Your task to perform on an android device: Show me productivity apps on the Play Store Image 0: 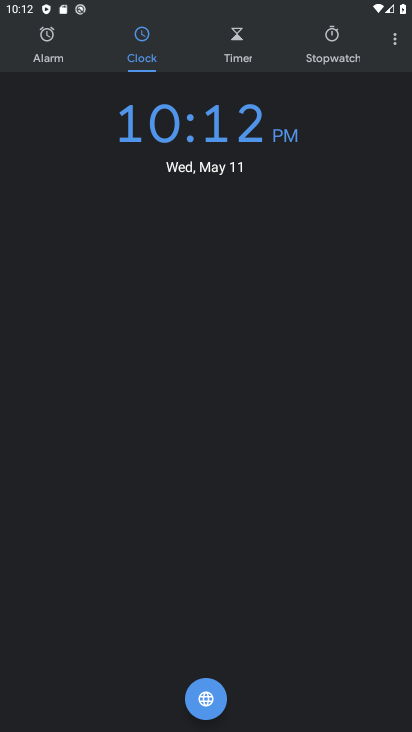
Step 0: press home button
Your task to perform on an android device: Show me productivity apps on the Play Store Image 1: 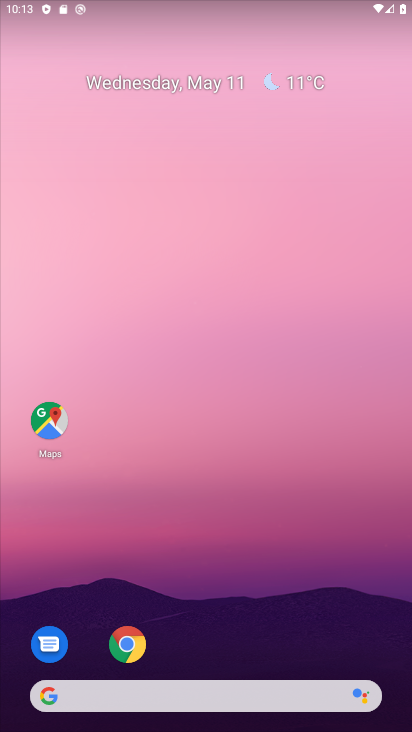
Step 1: drag from (270, 529) to (265, 10)
Your task to perform on an android device: Show me productivity apps on the Play Store Image 2: 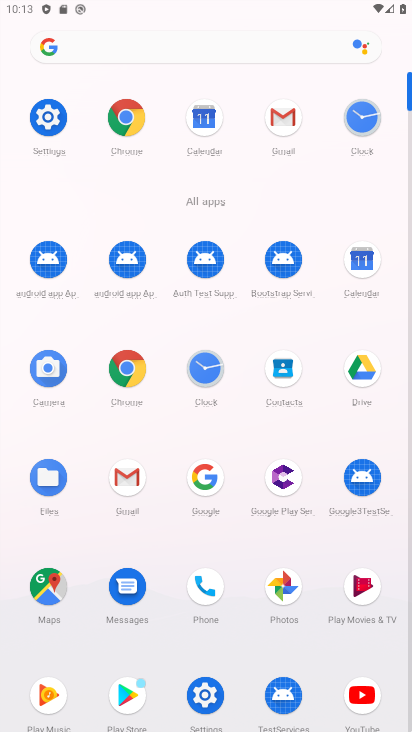
Step 2: click (121, 692)
Your task to perform on an android device: Show me productivity apps on the Play Store Image 3: 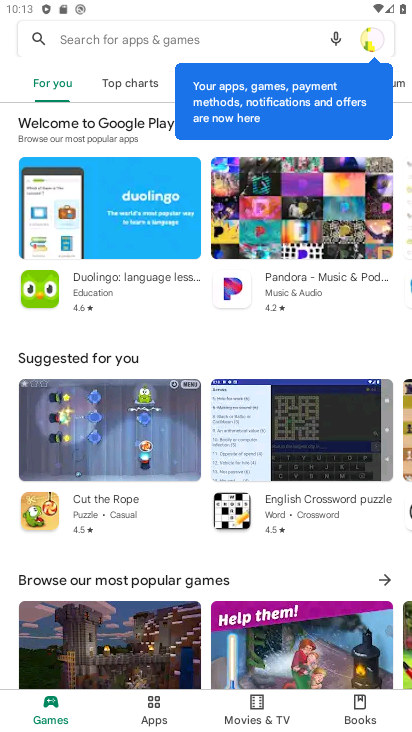
Step 3: click (145, 705)
Your task to perform on an android device: Show me productivity apps on the Play Store Image 4: 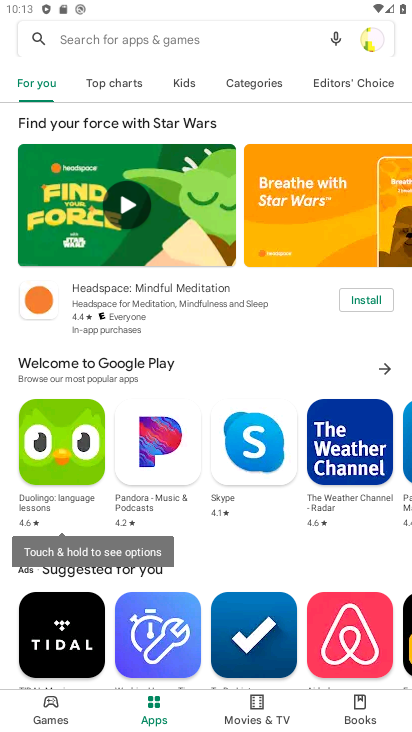
Step 4: click (251, 85)
Your task to perform on an android device: Show me productivity apps on the Play Store Image 5: 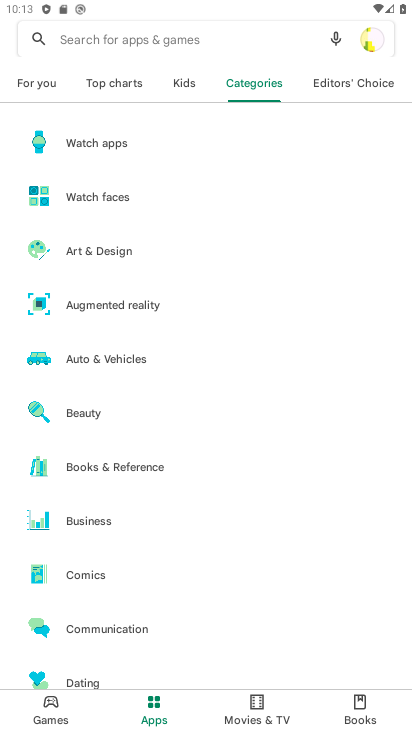
Step 5: drag from (163, 625) to (165, 144)
Your task to perform on an android device: Show me productivity apps on the Play Store Image 6: 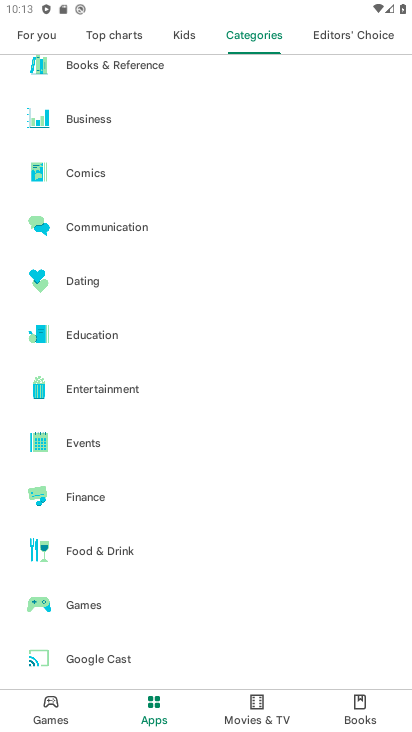
Step 6: drag from (194, 458) to (184, 94)
Your task to perform on an android device: Show me productivity apps on the Play Store Image 7: 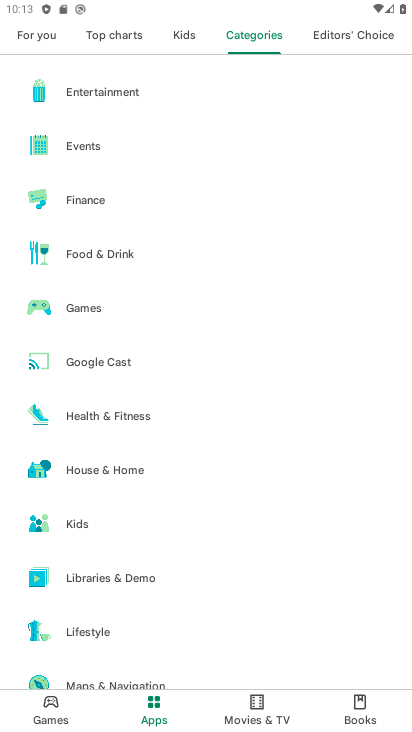
Step 7: drag from (202, 513) to (206, 85)
Your task to perform on an android device: Show me productivity apps on the Play Store Image 8: 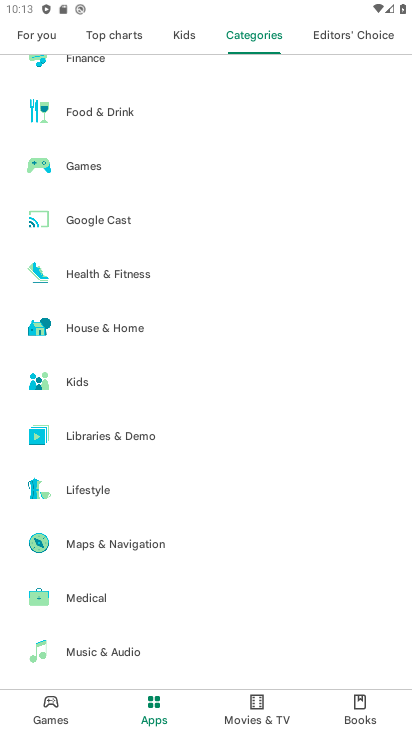
Step 8: drag from (190, 326) to (187, 90)
Your task to perform on an android device: Show me productivity apps on the Play Store Image 9: 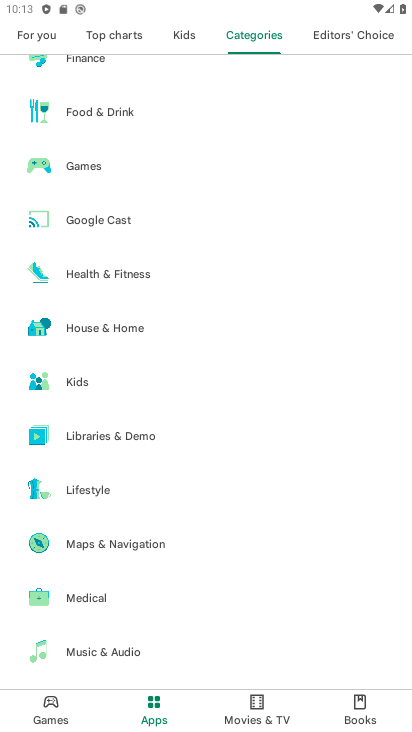
Step 9: drag from (234, 622) to (195, 202)
Your task to perform on an android device: Show me productivity apps on the Play Store Image 10: 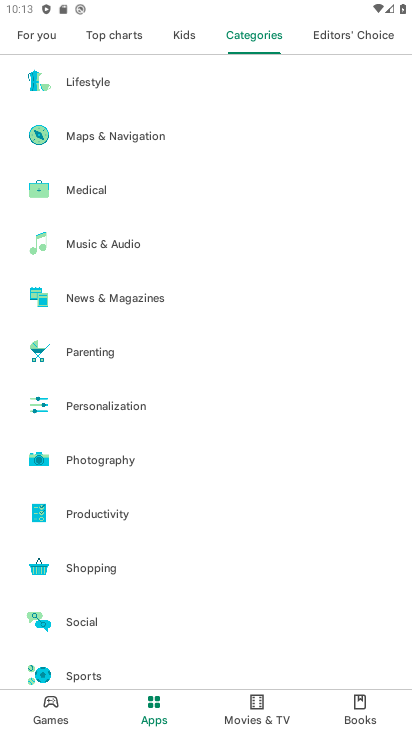
Step 10: click (123, 518)
Your task to perform on an android device: Show me productivity apps on the Play Store Image 11: 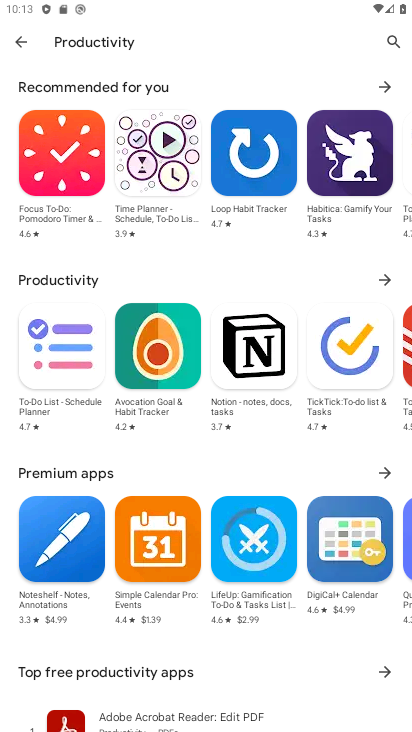
Step 11: task complete